Your task to perform on an android device: Open Google Maps and go to "Timeline" Image 0: 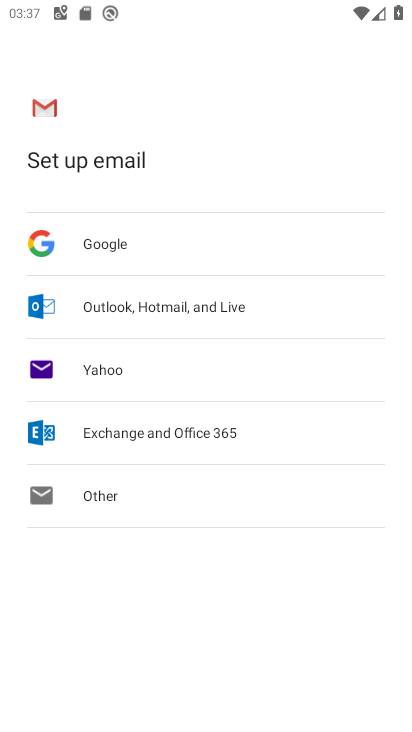
Step 0: press home button
Your task to perform on an android device: Open Google Maps and go to "Timeline" Image 1: 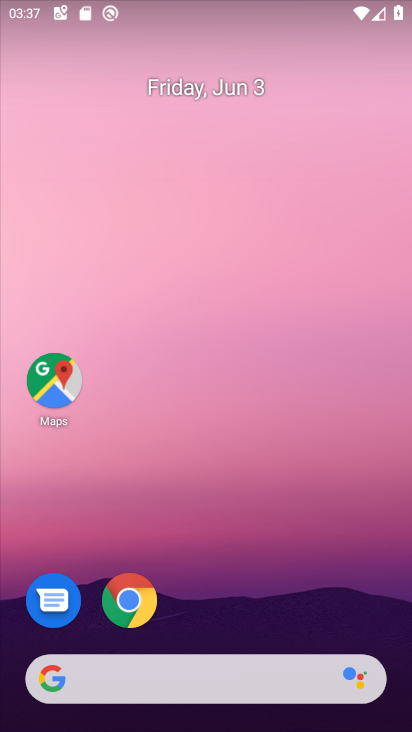
Step 1: click (52, 379)
Your task to perform on an android device: Open Google Maps and go to "Timeline" Image 2: 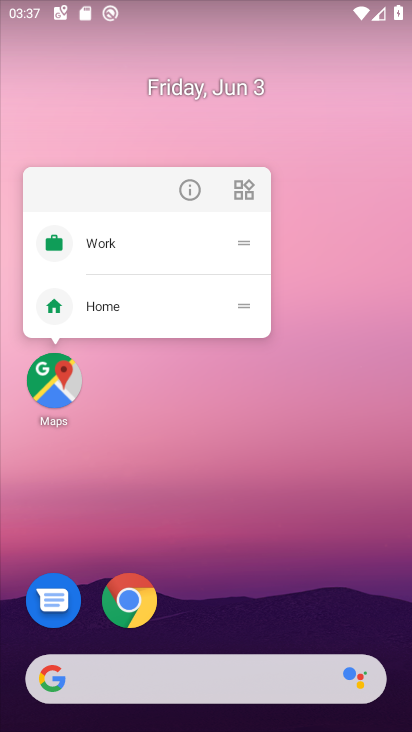
Step 2: click (50, 387)
Your task to perform on an android device: Open Google Maps and go to "Timeline" Image 3: 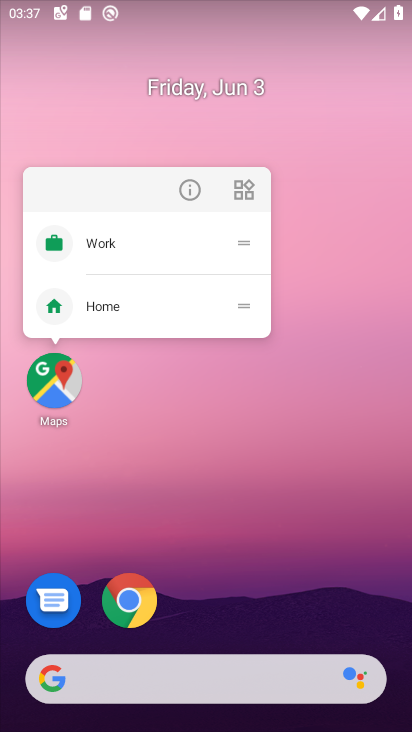
Step 3: click (53, 383)
Your task to perform on an android device: Open Google Maps and go to "Timeline" Image 4: 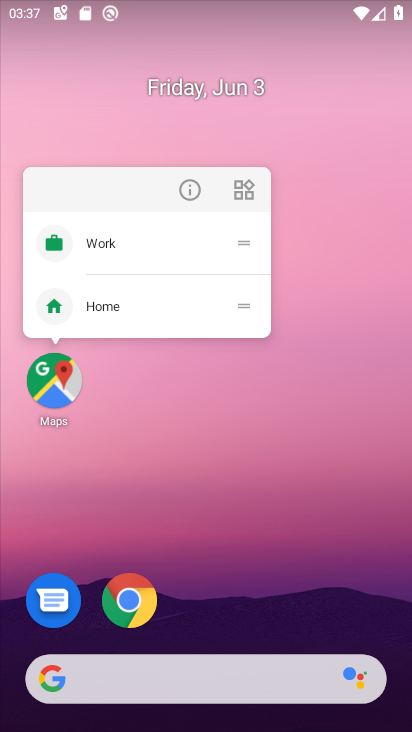
Step 4: click (56, 381)
Your task to perform on an android device: Open Google Maps and go to "Timeline" Image 5: 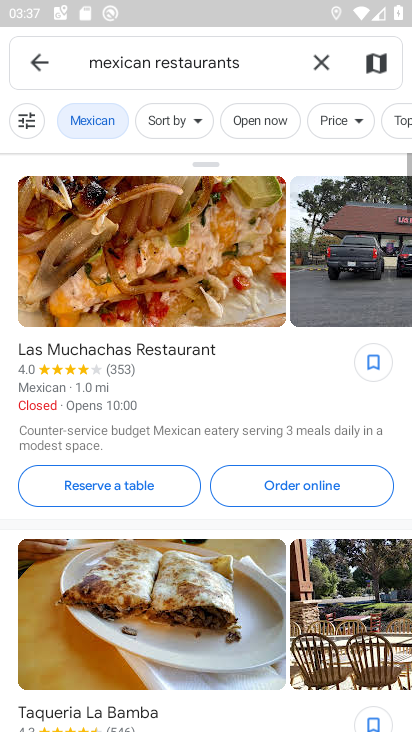
Step 5: click (34, 66)
Your task to perform on an android device: Open Google Maps and go to "Timeline" Image 6: 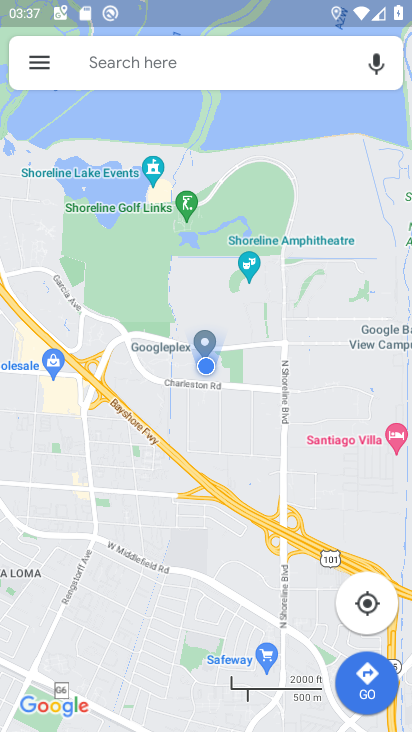
Step 6: click (45, 55)
Your task to perform on an android device: Open Google Maps and go to "Timeline" Image 7: 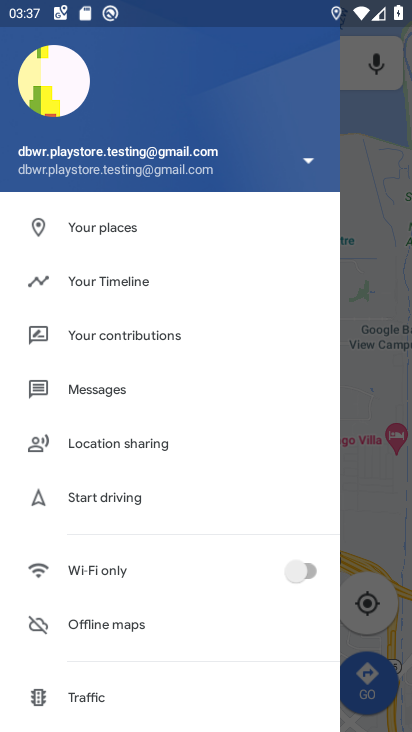
Step 7: click (116, 283)
Your task to perform on an android device: Open Google Maps and go to "Timeline" Image 8: 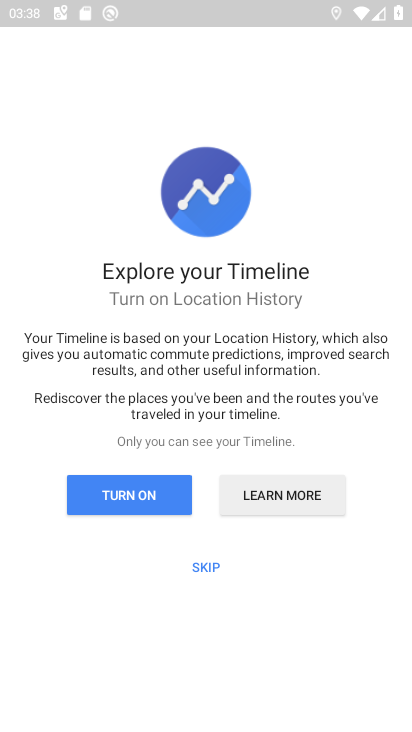
Step 8: click (115, 486)
Your task to perform on an android device: Open Google Maps and go to "Timeline" Image 9: 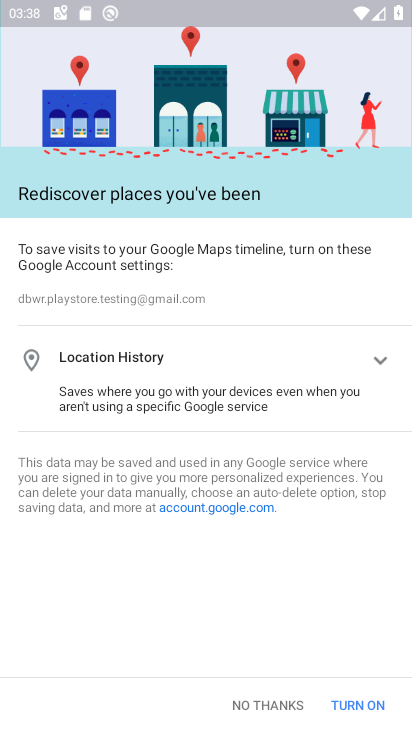
Step 9: click (268, 700)
Your task to perform on an android device: Open Google Maps and go to "Timeline" Image 10: 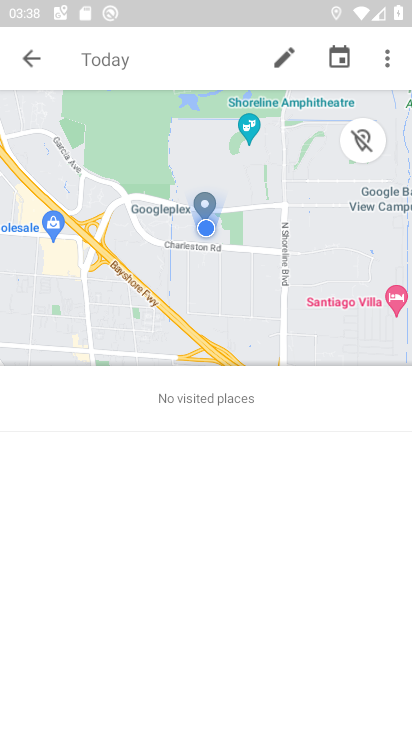
Step 10: task complete